Your task to perform on an android device: allow notifications from all sites in the chrome app Image 0: 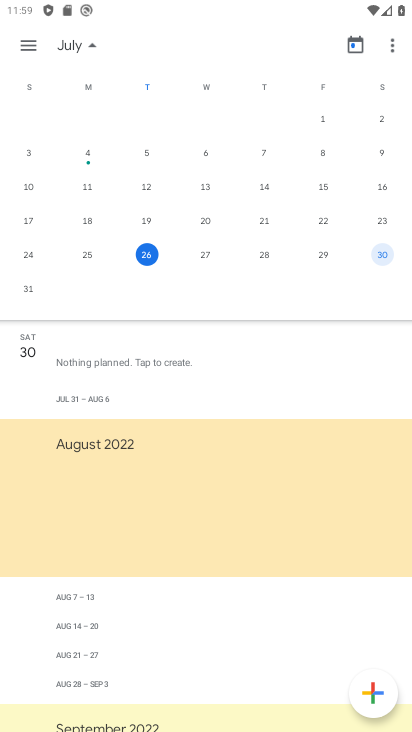
Step 0: press home button
Your task to perform on an android device: allow notifications from all sites in the chrome app Image 1: 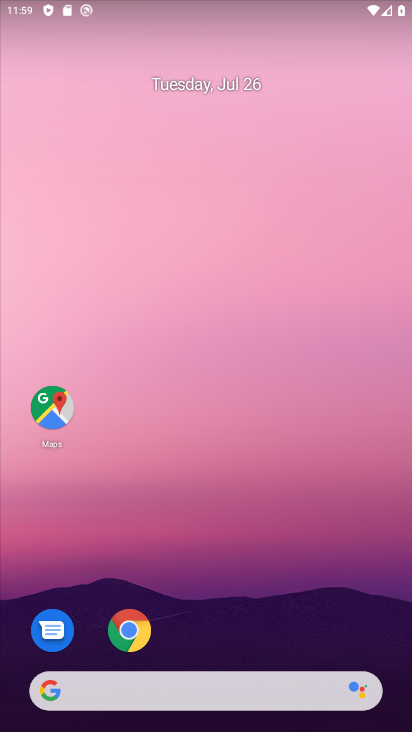
Step 1: click (135, 627)
Your task to perform on an android device: allow notifications from all sites in the chrome app Image 2: 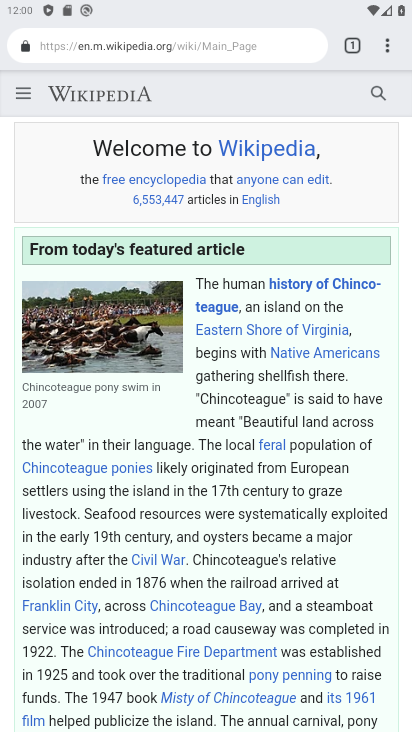
Step 2: click (385, 40)
Your task to perform on an android device: allow notifications from all sites in the chrome app Image 3: 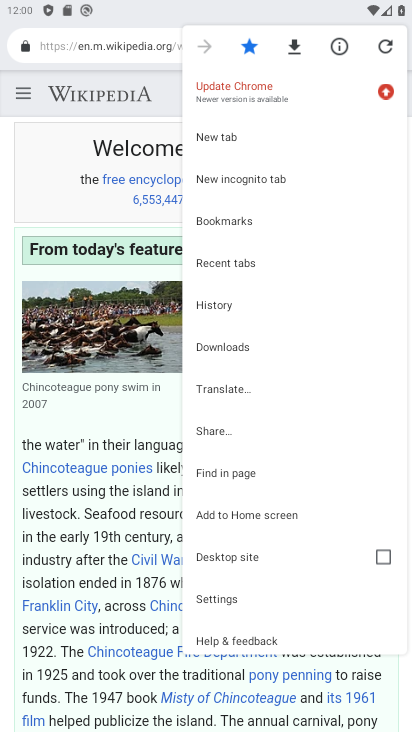
Step 3: click (216, 591)
Your task to perform on an android device: allow notifications from all sites in the chrome app Image 4: 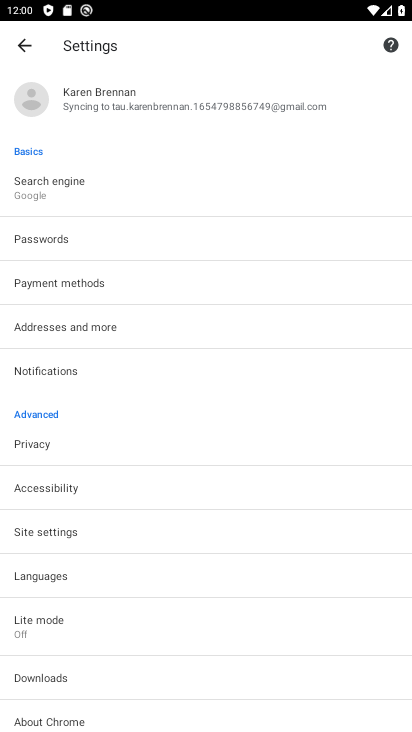
Step 4: click (51, 364)
Your task to perform on an android device: allow notifications from all sites in the chrome app Image 5: 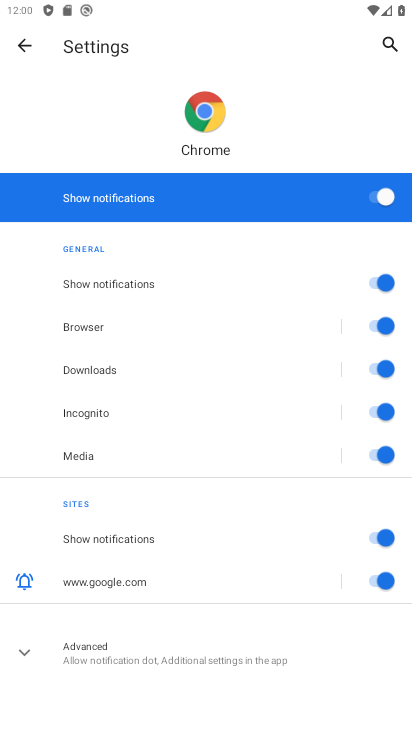
Step 5: task complete